Your task to perform on an android device: turn off data saver in the chrome app Image 0: 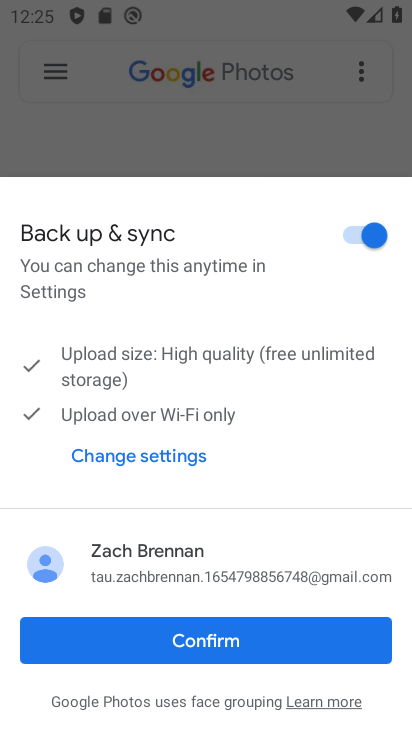
Step 0: press home button
Your task to perform on an android device: turn off data saver in the chrome app Image 1: 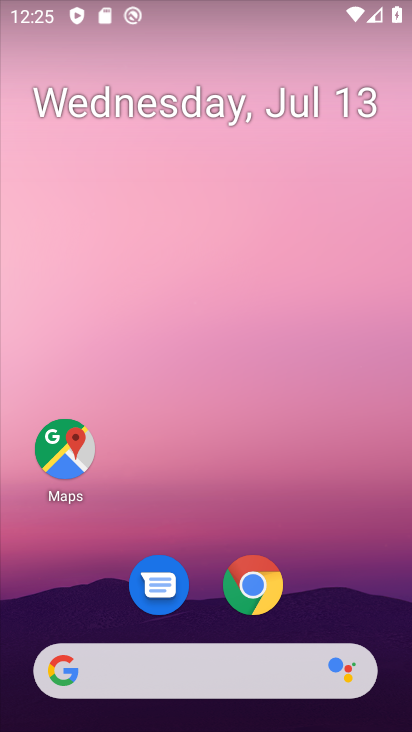
Step 1: click (261, 590)
Your task to perform on an android device: turn off data saver in the chrome app Image 2: 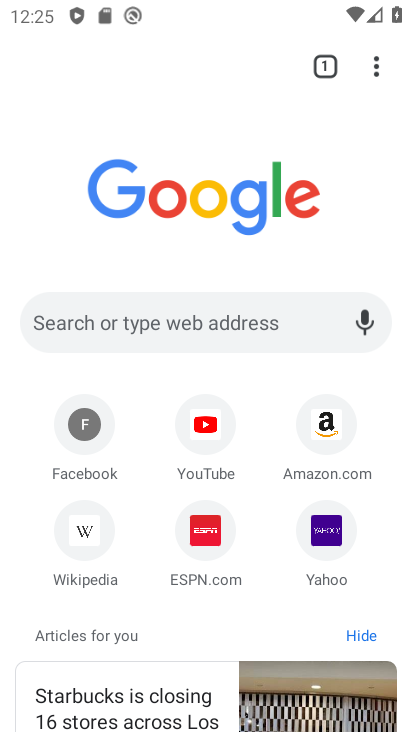
Step 2: click (377, 64)
Your task to perform on an android device: turn off data saver in the chrome app Image 3: 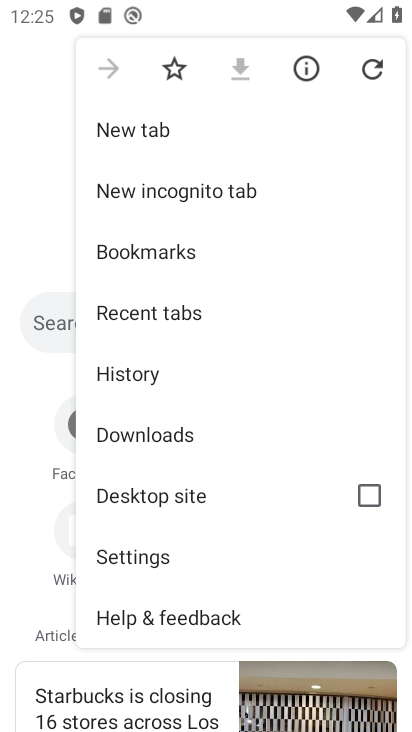
Step 3: click (168, 547)
Your task to perform on an android device: turn off data saver in the chrome app Image 4: 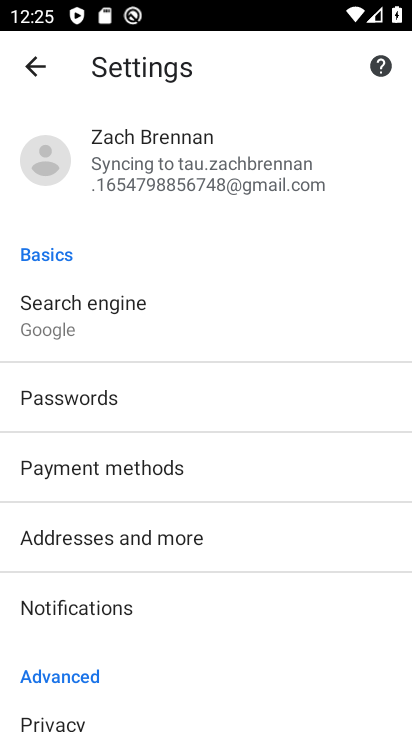
Step 4: drag from (246, 623) to (277, 135)
Your task to perform on an android device: turn off data saver in the chrome app Image 5: 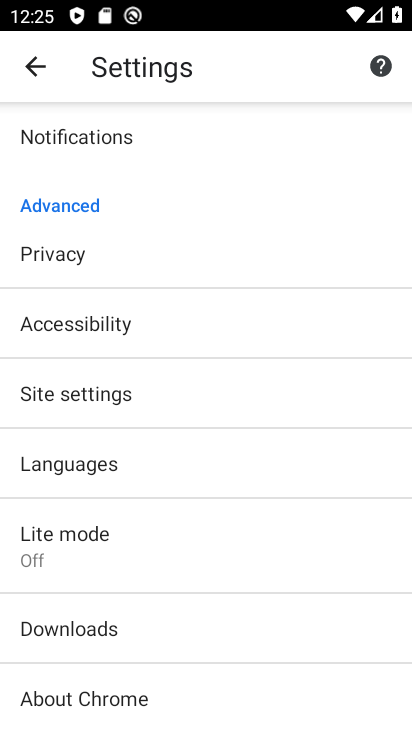
Step 5: click (223, 567)
Your task to perform on an android device: turn off data saver in the chrome app Image 6: 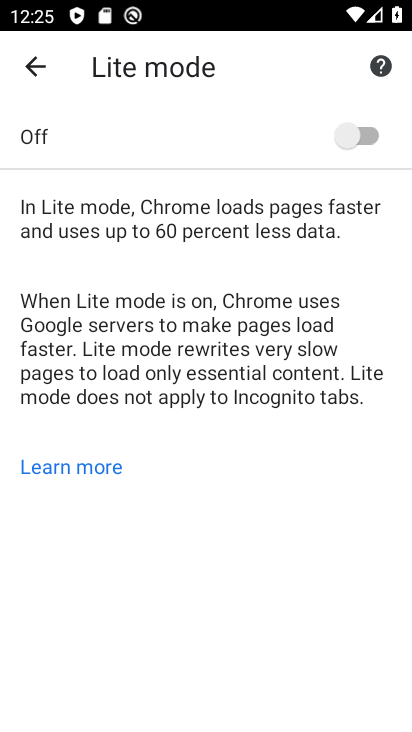
Step 6: task complete